Your task to perform on an android device: turn on sleep mode Image 0: 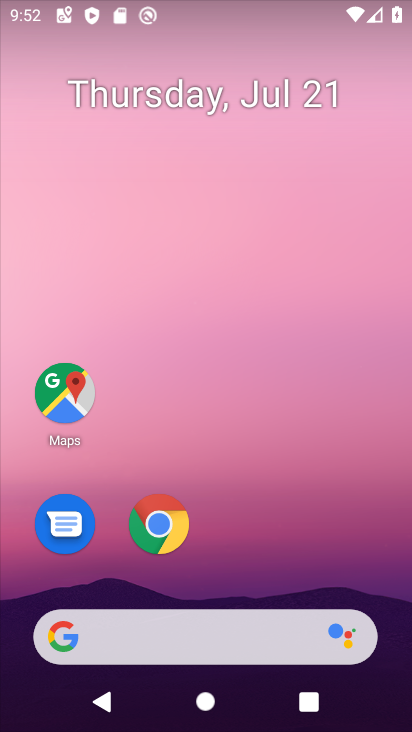
Step 0: press home button
Your task to perform on an android device: turn on sleep mode Image 1: 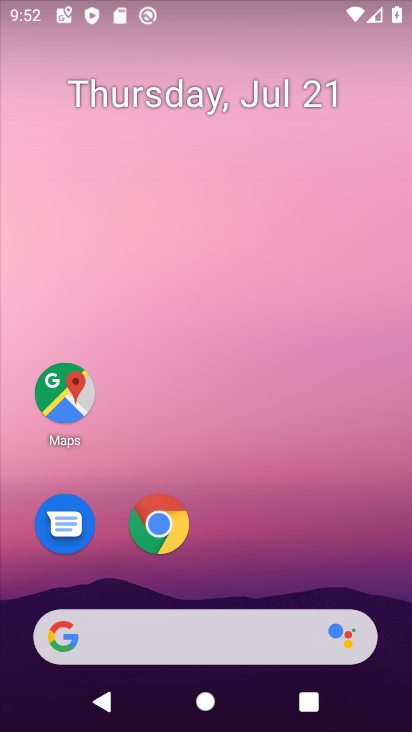
Step 1: drag from (204, 624) to (238, 103)
Your task to perform on an android device: turn on sleep mode Image 2: 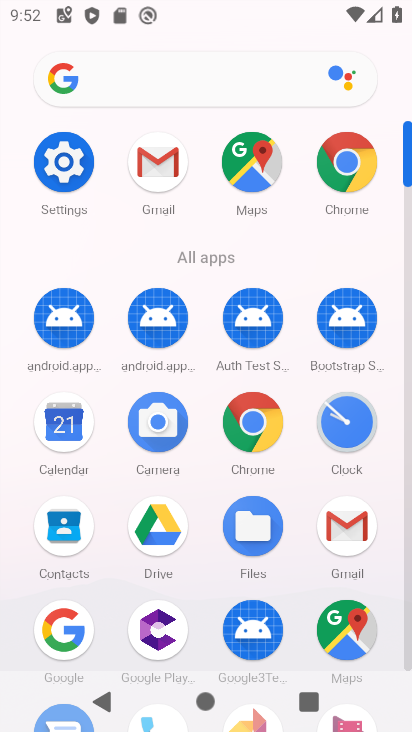
Step 2: click (59, 155)
Your task to perform on an android device: turn on sleep mode Image 3: 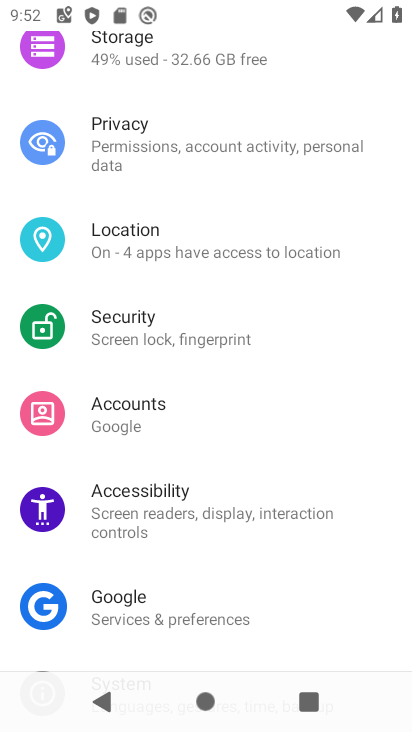
Step 3: drag from (276, 135) to (258, 583)
Your task to perform on an android device: turn on sleep mode Image 4: 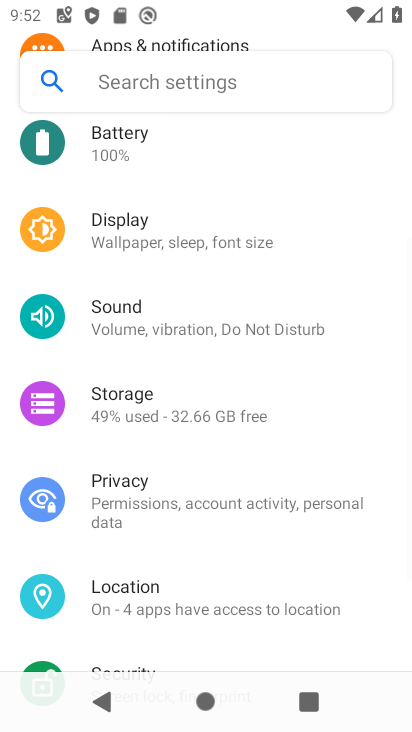
Step 4: click (149, 239)
Your task to perform on an android device: turn on sleep mode Image 5: 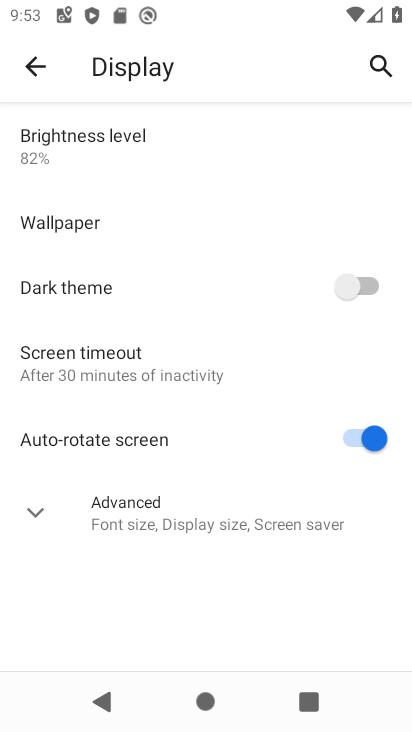
Step 5: task complete